Your task to perform on an android device: Open Yahoo.com Image 0: 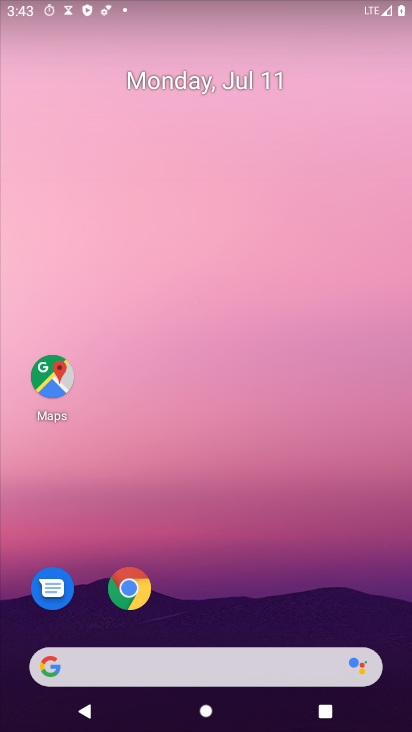
Step 0: click (128, 588)
Your task to perform on an android device: Open Yahoo.com Image 1: 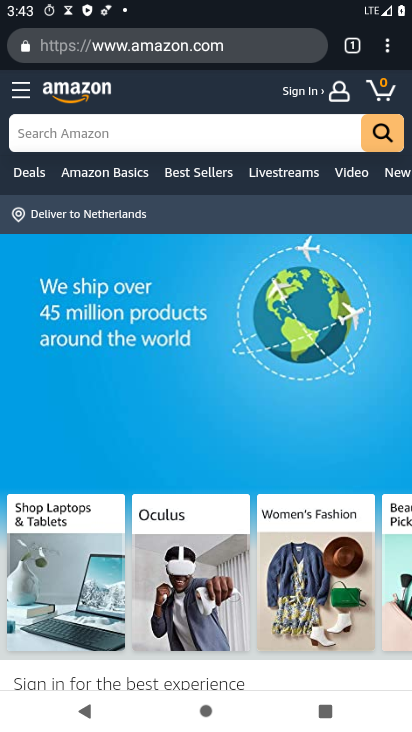
Step 1: click (224, 43)
Your task to perform on an android device: Open Yahoo.com Image 2: 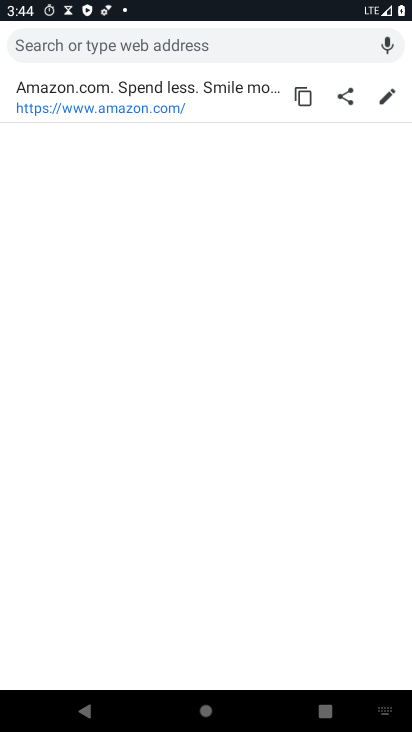
Step 2: type "yahoo.com"
Your task to perform on an android device: Open Yahoo.com Image 3: 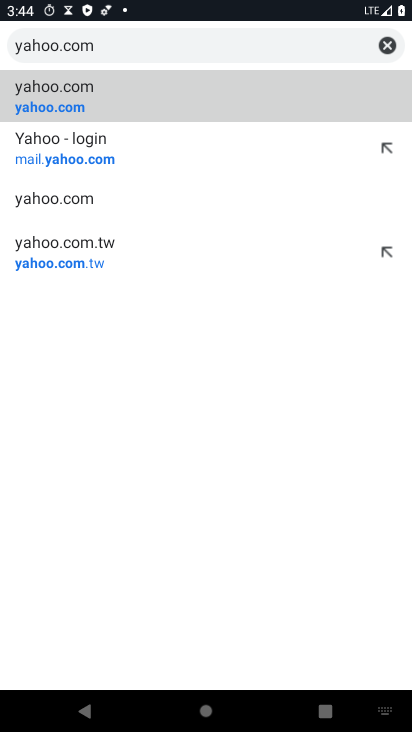
Step 3: click (202, 97)
Your task to perform on an android device: Open Yahoo.com Image 4: 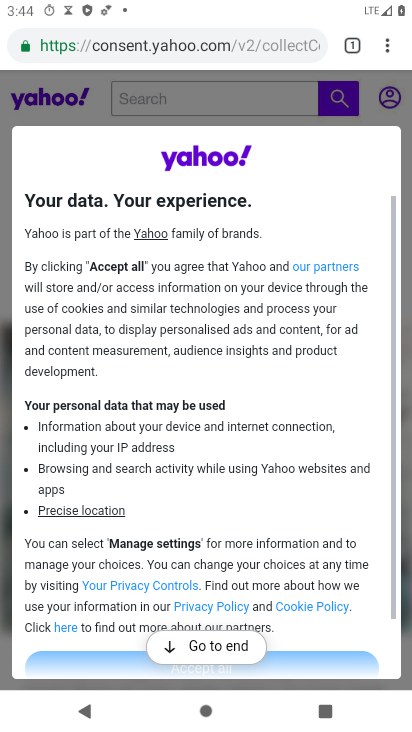
Step 4: task complete